Your task to perform on an android device: open device folders in google photos Image 0: 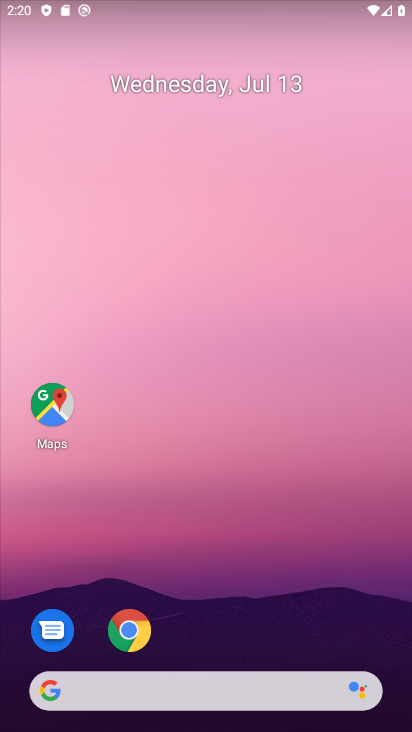
Step 0: drag from (376, 619) to (260, 38)
Your task to perform on an android device: open device folders in google photos Image 1: 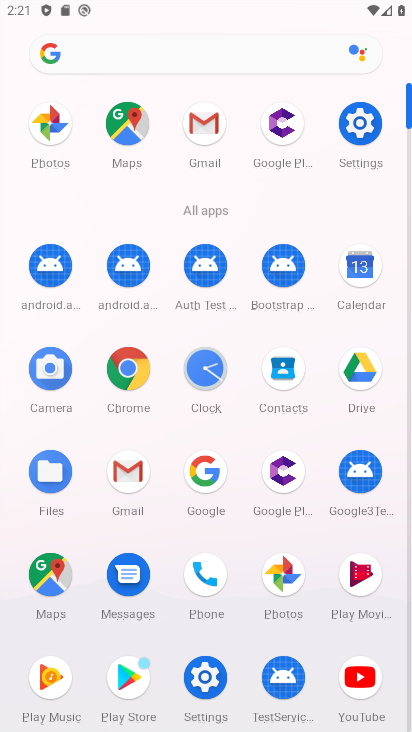
Step 1: click (48, 126)
Your task to perform on an android device: open device folders in google photos Image 2: 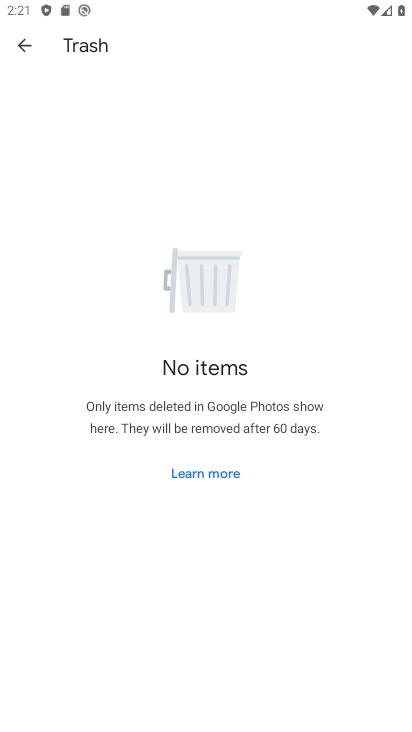
Step 2: click (26, 42)
Your task to perform on an android device: open device folders in google photos Image 3: 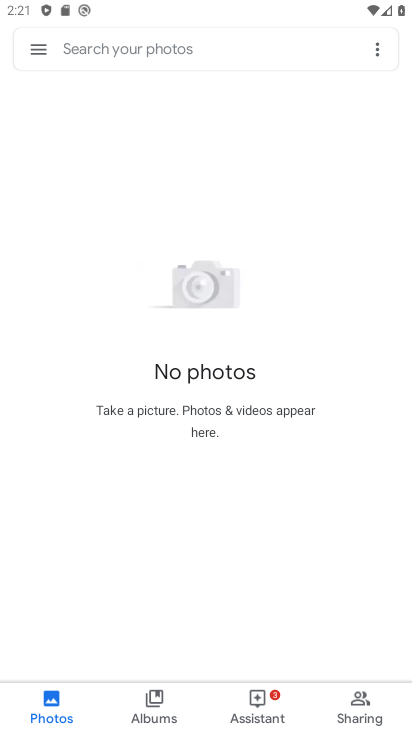
Step 3: click (26, 42)
Your task to perform on an android device: open device folders in google photos Image 4: 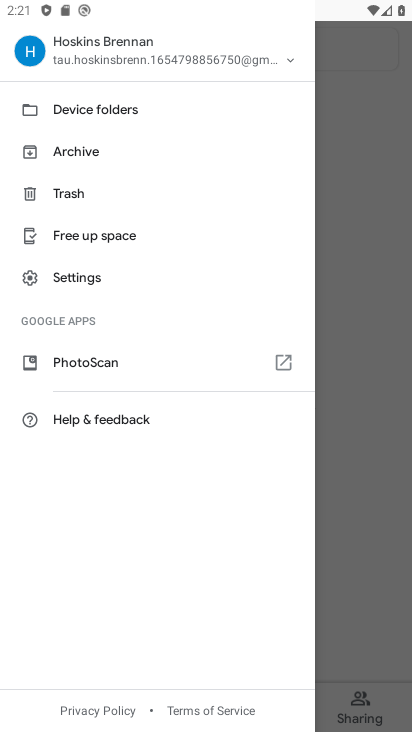
Step 4: click (83, 100)
Your task to perform on an android device: open device folders in google photos Image 5: 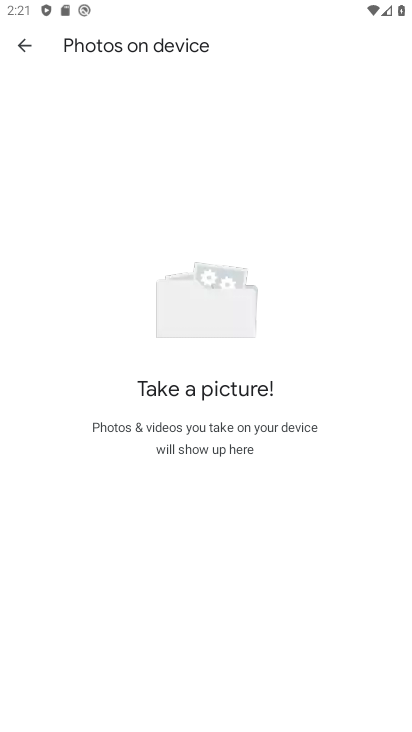
Step 5: task complete